Your task to perform on an android device: Open the Play Movies app and select the watchlist tab. Image 0: 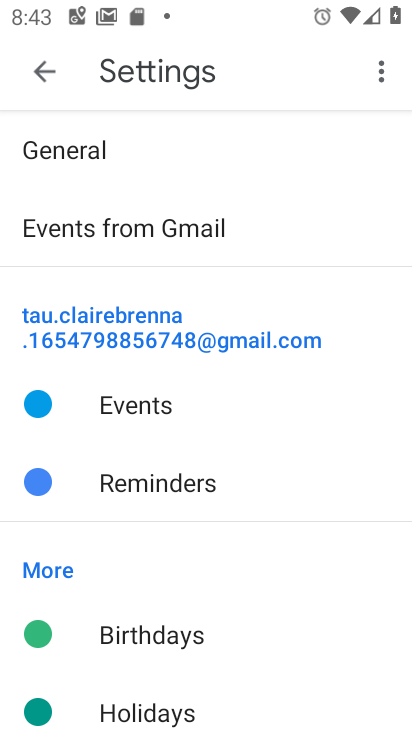
Step 0: press home button
Your task to perform on an android device: Open the Play Movies app and select the watchlist tab. Image 1: 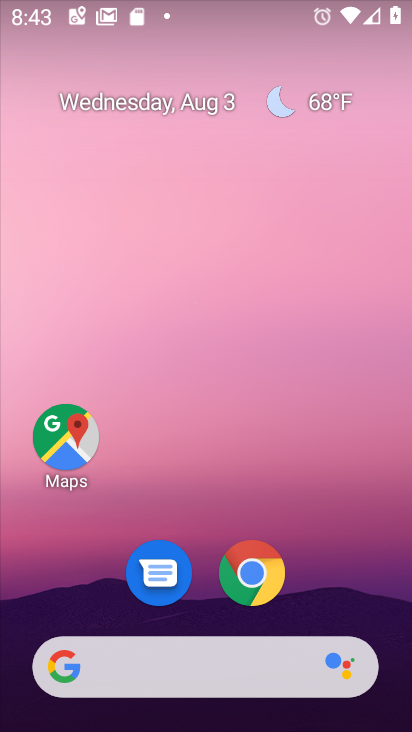
Step 1: drag from (333, 582) to (320, 0)
Your task to perform on an android device: Open the Play Movies app and select the watchlist tab. Image 2: 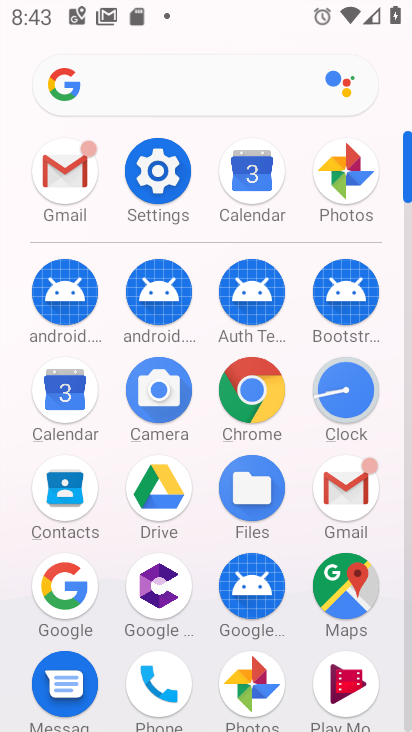
Step 2: drag from (404, 573) to (408, 539)
Your task to perform on an android device: Open the Play Movies app and select the watchlist tab. Image 3: 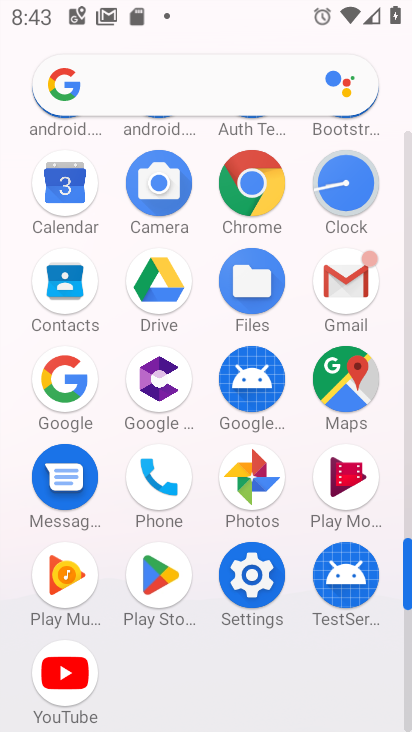
Step 3: click (345, 480)
Your task to perform on an android device: Open the Play Movies app and select the watchlist tab. Image 4: 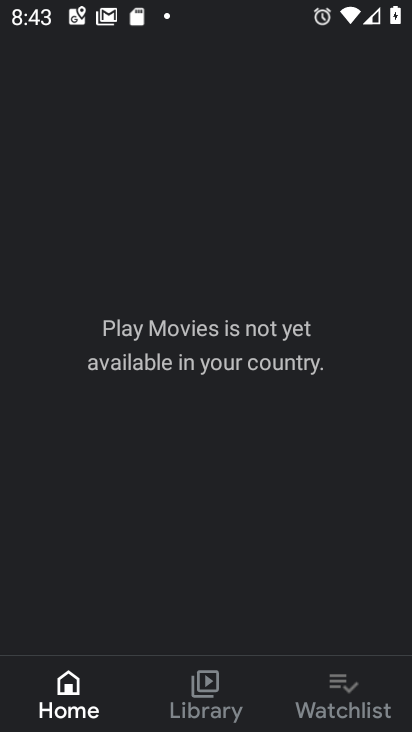
Step 4: click (315, 689)
Your task to perform on an android device: Open the Play Movies app and select the watchlist tab. Image 5: 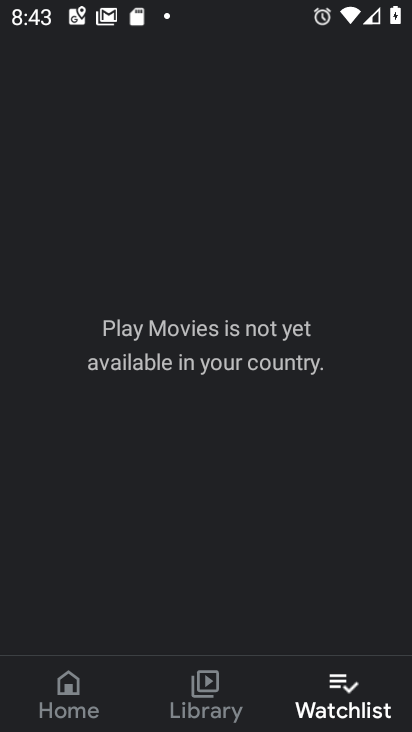
Step 5: task complete